Your task to perform on an android device: star an email in the gmail app Image 0: 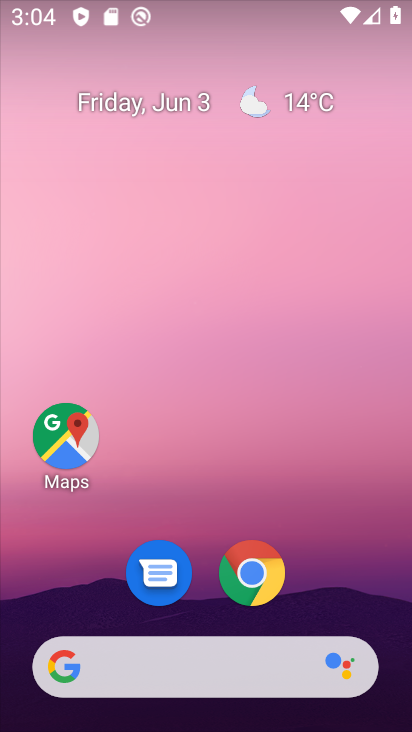
Step 0: drag from (300, 632) to (338, 84)
Your task to perform on an android device: star an email in the gmail app Image 1: 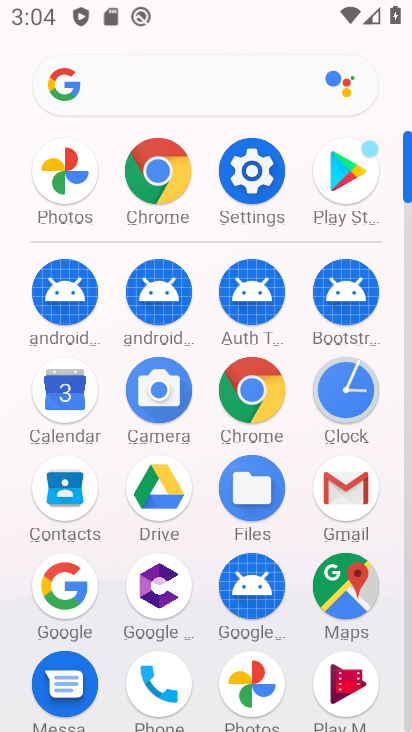
Step 1: click (336, 504)
Your task to perform on an android device: star an email in the gmail app Image 2: 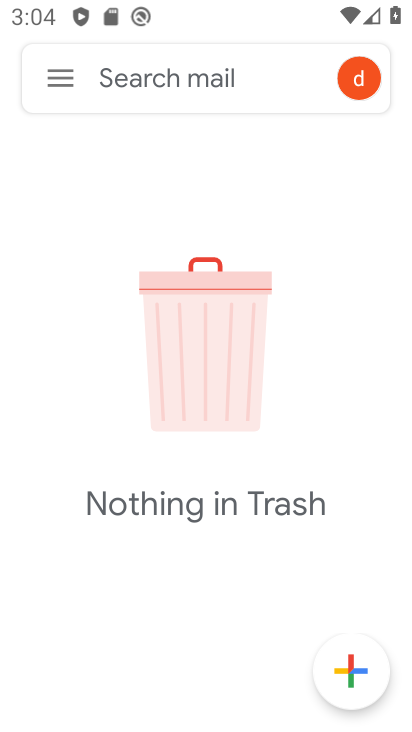
Step 2: click (73, 85)
Your task to perform on an android device: star an email in the gmail app Image 3: 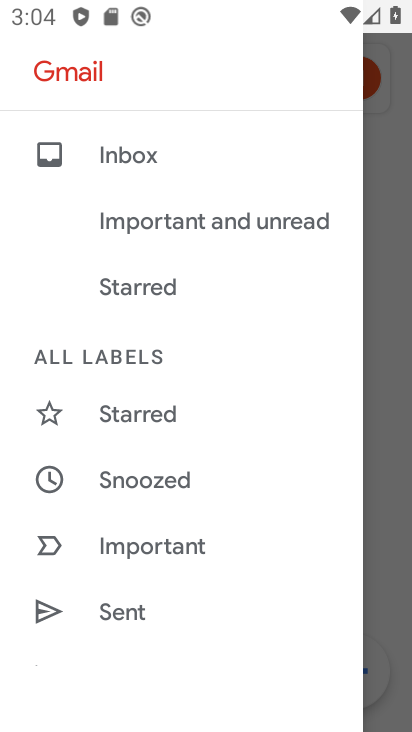
Step 3: click (171, 408)
Your task to perform on an android device: star an email in the gmail app Image 4: 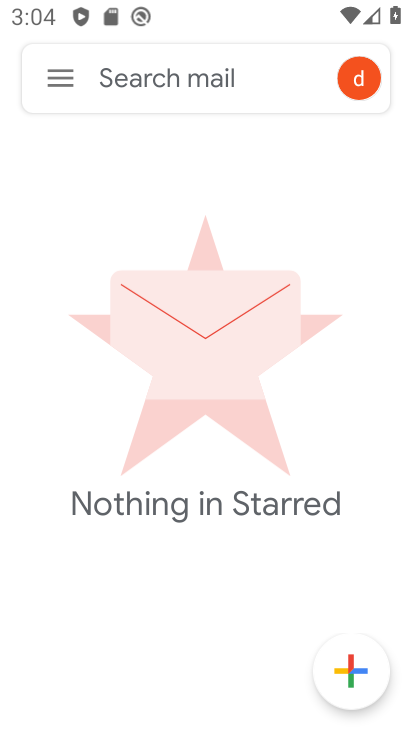
Step 4: task complete